Your task to perform on an android device: See recent photos Image 0: 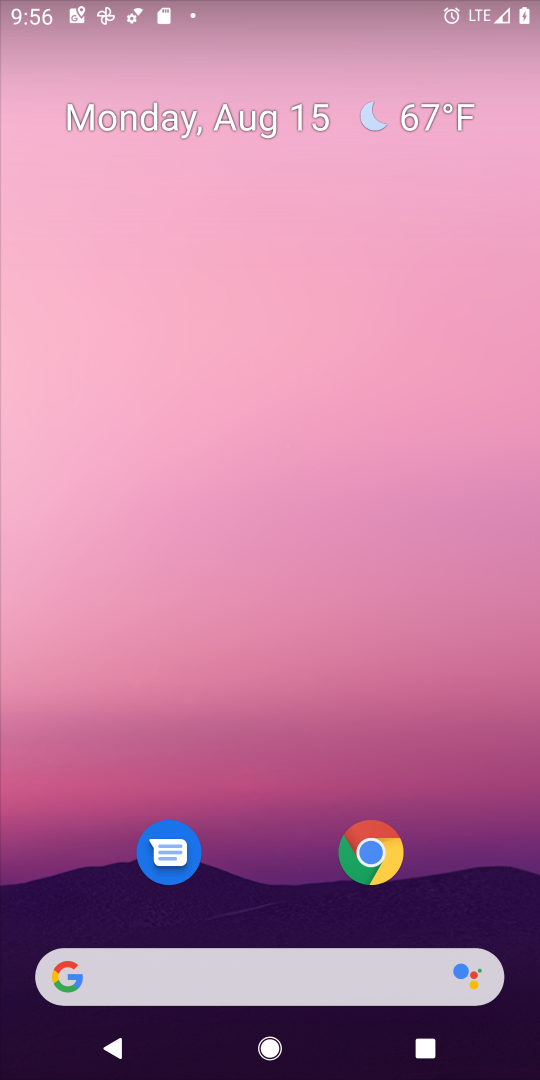
Step 0: drag from (256, 976) to (238, 123)
Your task to perform on an android device: See recent photos Image 1: 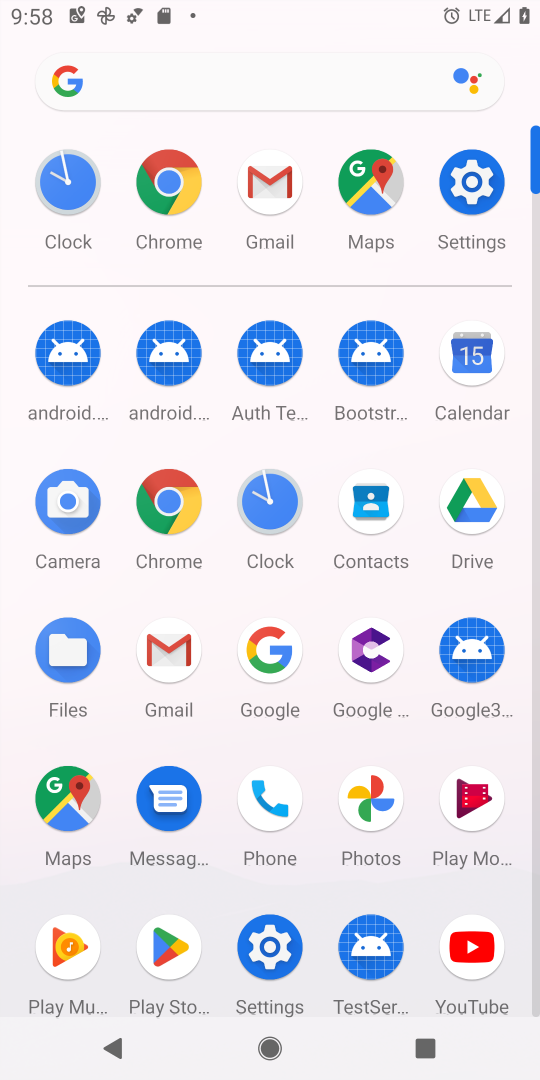
Step 1: click (375, 796)
Your task to perform on an android device: See recent photos Image 2: 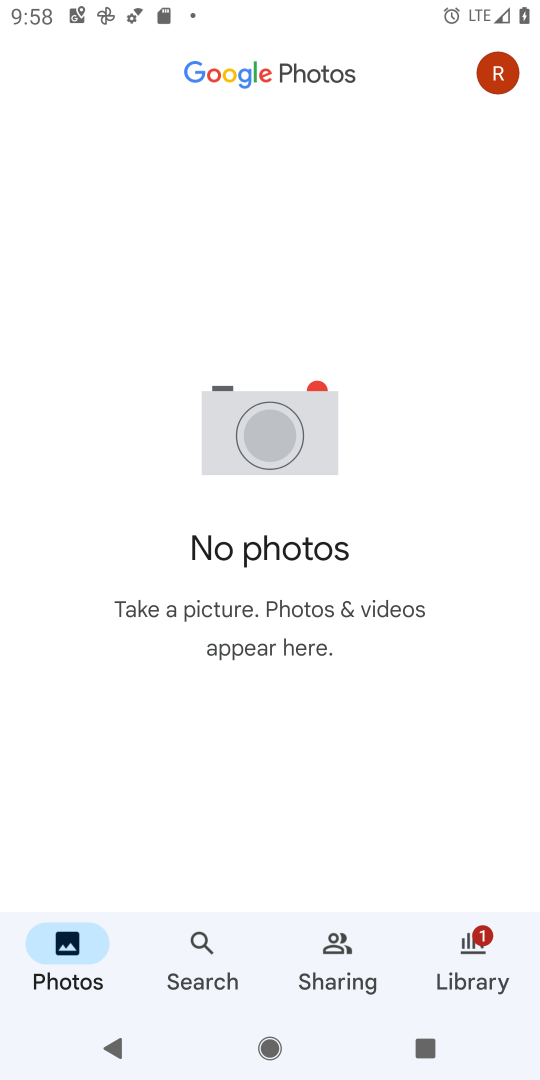
Step 2: click (319, 958)
Your task to perform on an android device: See recent photos Image 3: 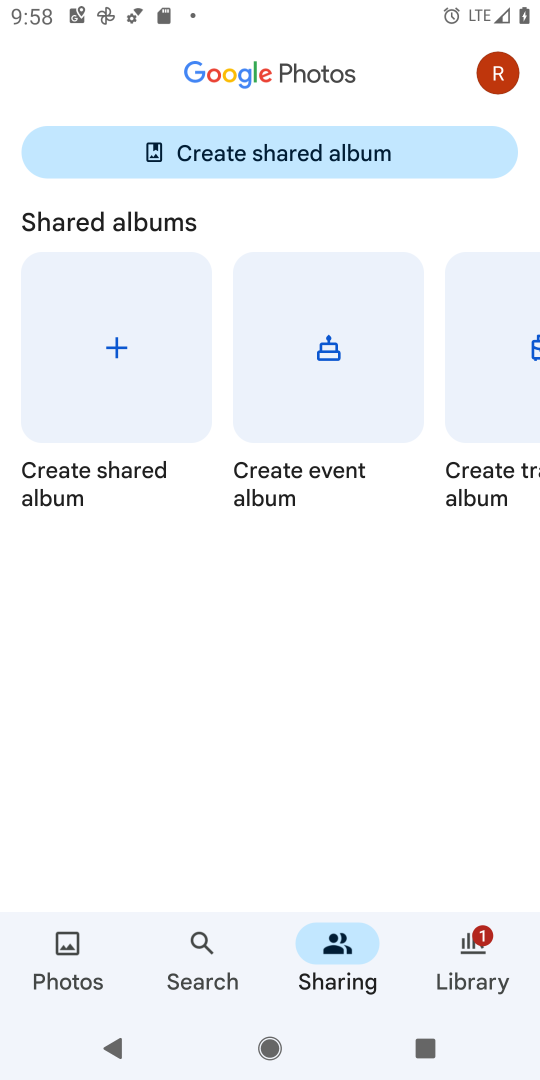
Step 3: click (485, 962)
Your task to perform on an android device: See recent photos Image 4: 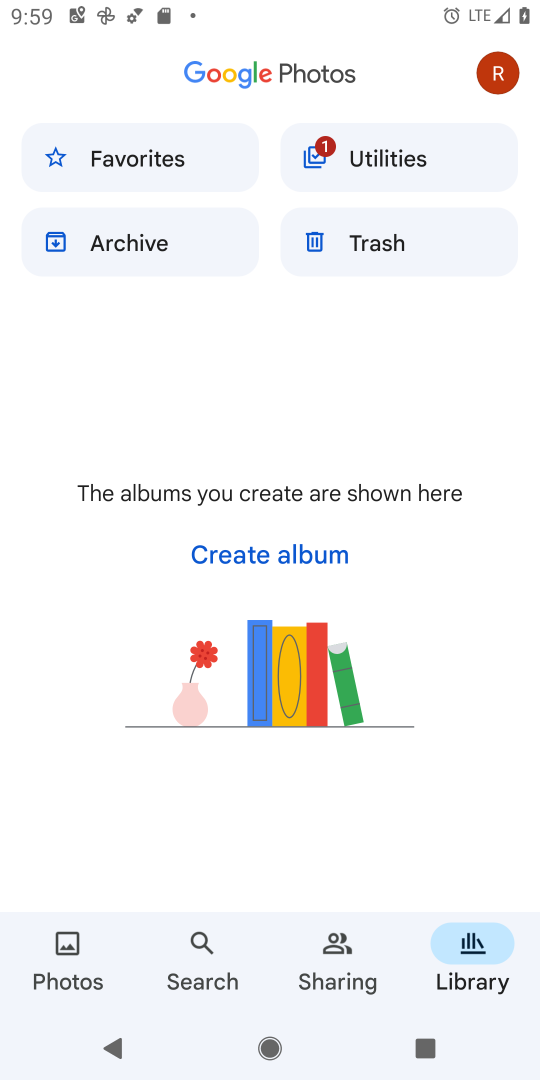
Step 4: click (30, 949)
Your task to perform on an android device: See recent photos Image 5: 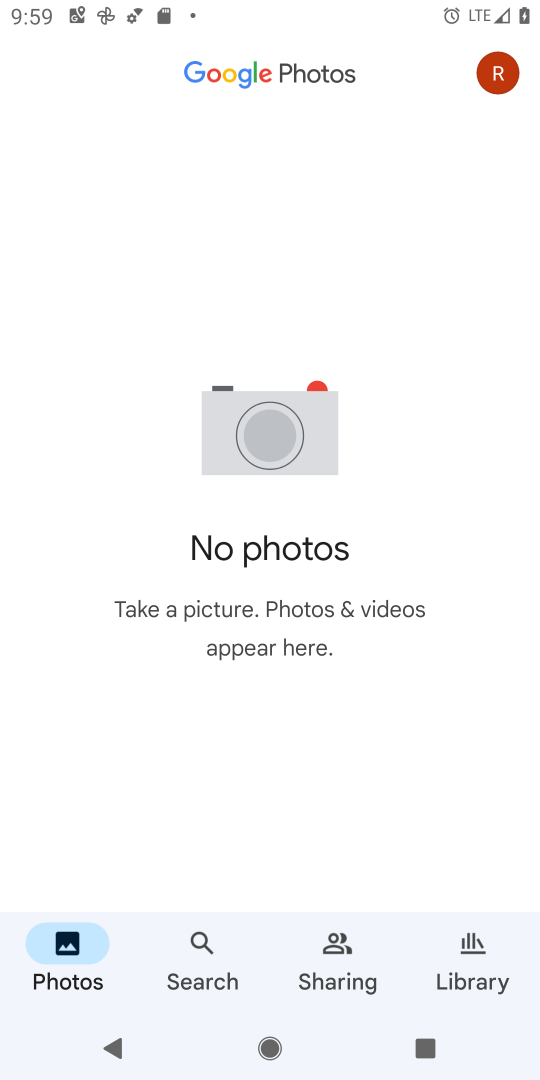
Step 5: task complete